Your task to perform on an android device: Go to CNN.com Image 0: 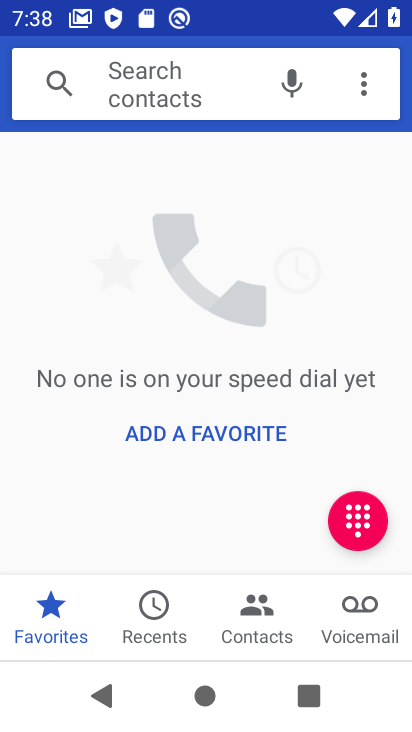
Step 0: press home button
Your task to perform on an android device: Go to CNN.com Image 1: 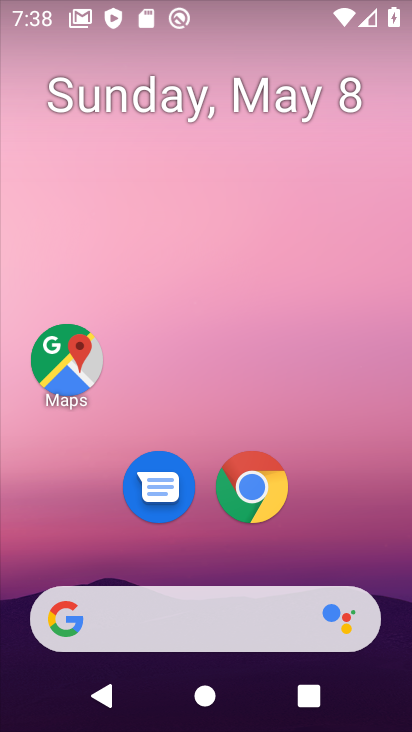
Step 1: click (277, 490)
Your task to perform on an android device: Go to CNN.com Image 2: 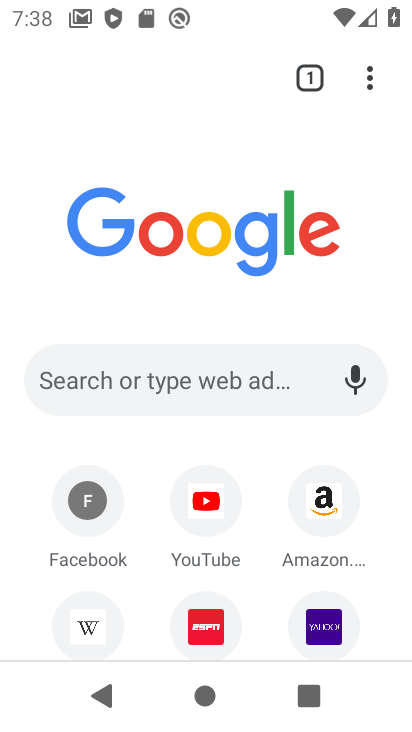
Step 2: click (180, 376)
Your task to perform on an android device: Go to CNN.com Image 3: 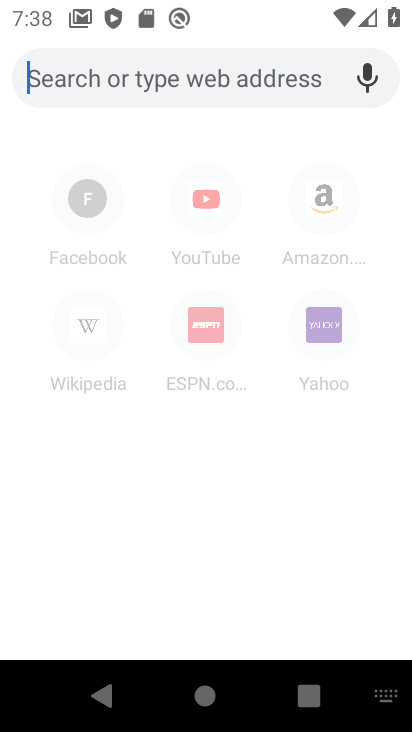
Step 3: type "cnn"
Your task to perform on an android device: Go to CNN.com Image 4: 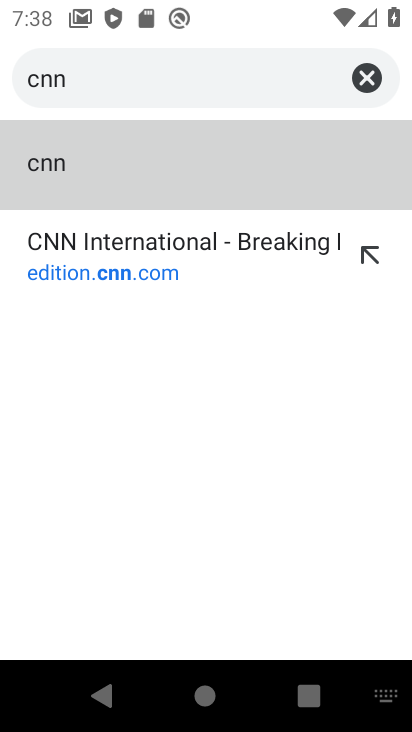
Step 4: click (155, 244)
Your task to perform on an android device: Go to CNN.com Image 5: 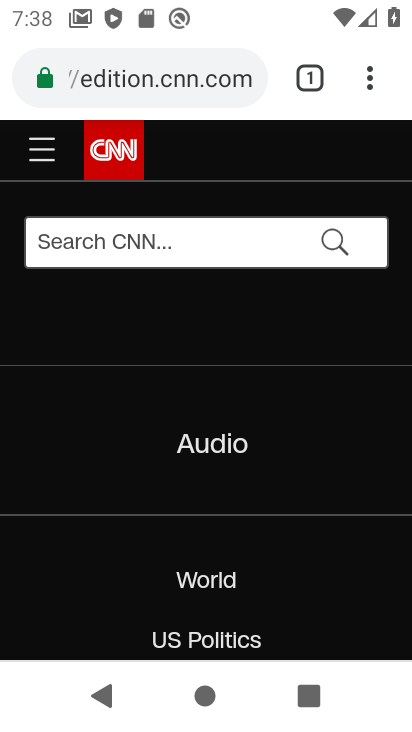
Step 5: task complete